Your task to perform on an android device: Go to eBay Image 0: 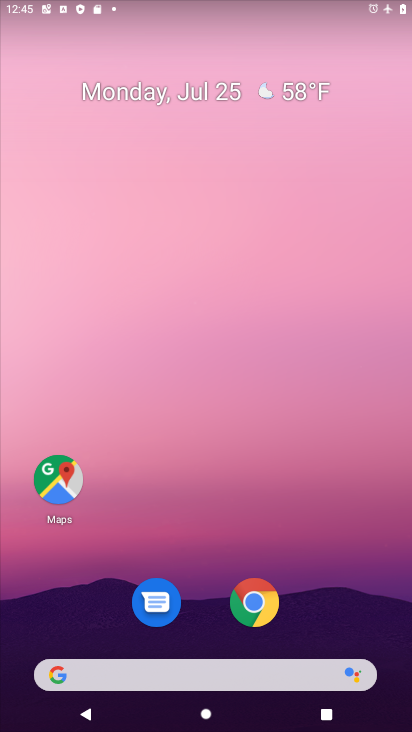
Step 0: click (252, 597)
Your task to perform on an android device: Go to eBay Image 1: 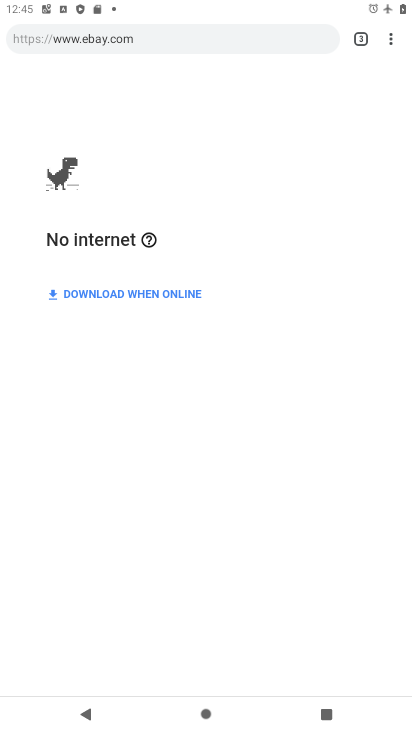
Step 1: click (354, 38)
Your task to perform on an android device: Go to eBay Image 2: 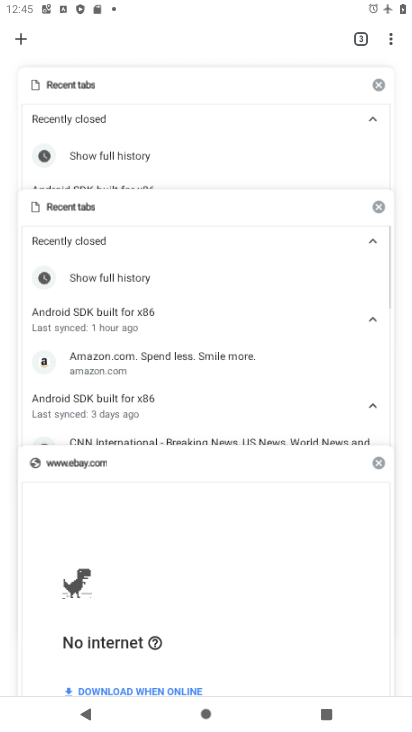
Step 2: click (30, 38)
Your task to perform on an android device: Go to eBay Image 3: 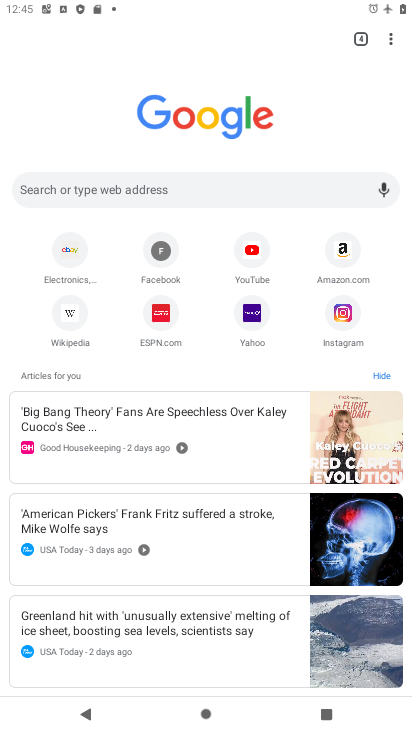
Step 3: click (115, 184)
Your task to perform on an android device: Go to eBay Image 4: 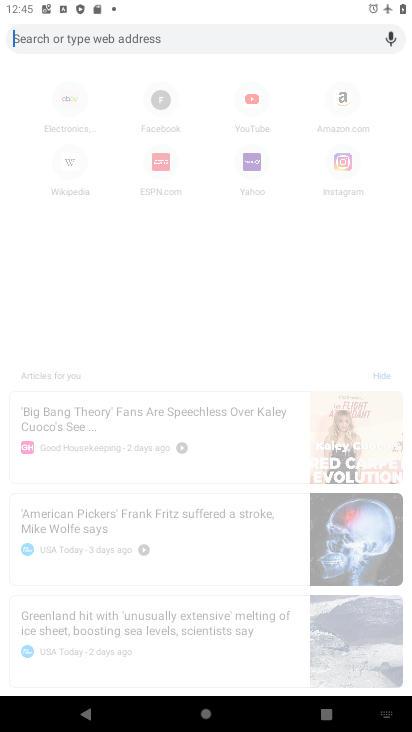
Step 4: type " eBay"
Your task to perform on an android device: Go to eBay Image 5: 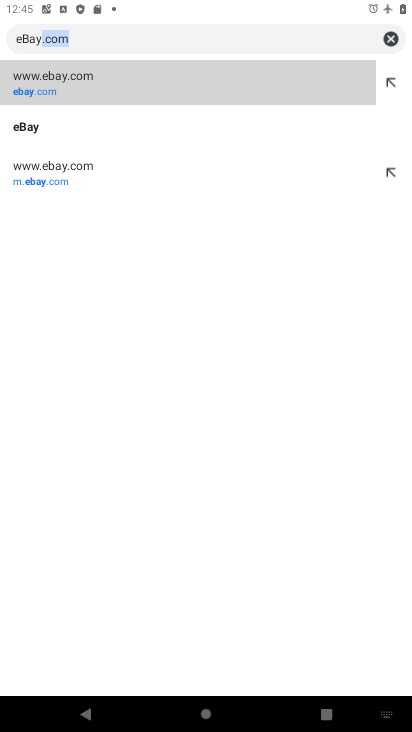
Step 5: type ""
Your task to perform on an android device: Go to eBay Image 6: 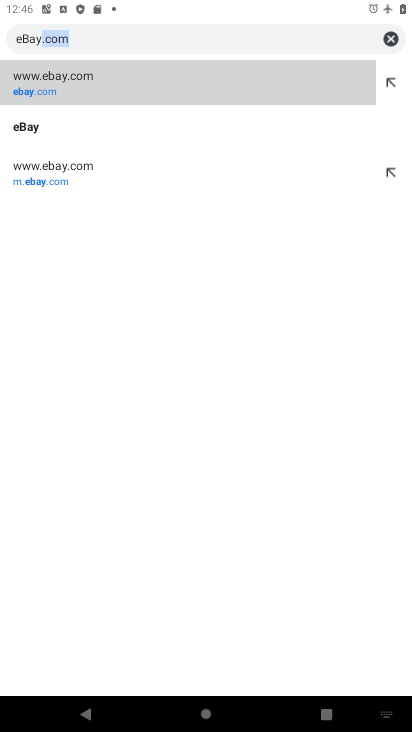
Step 6: click (52, 133)
Your task to perform on an android device: Go to eBay Image 7: 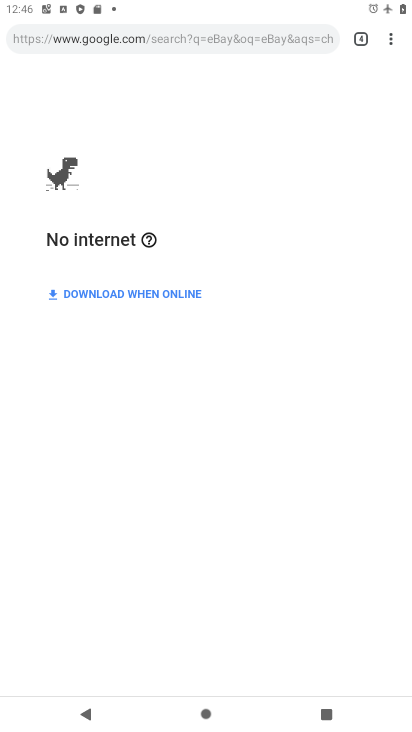
Step 7: task complete